Your task to perform on an android device: change the upload size in google photos Image 0: 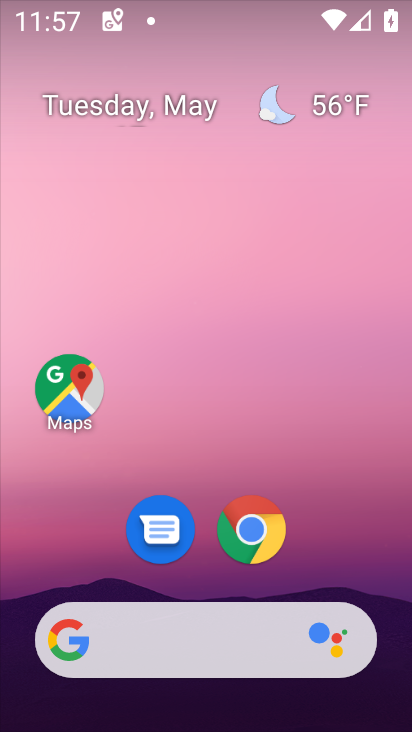
Step 0: drag from (400, 599) to (410, 138)
Your task to perform on an android device: change the upload size in google photos Image 1: 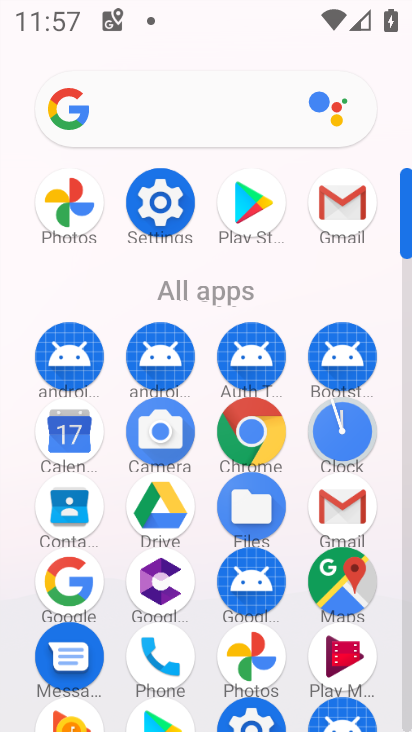
Step 1: drag from (405, 175) to (406, 140)
Your task to perform on an android device: change the upload size in google photos Image 2: 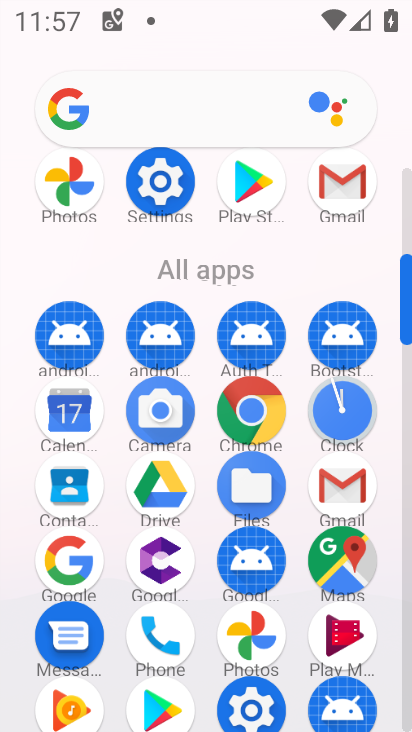
Step 2: click (255, 642)
Your task to perform on an android device: change the upload size in google photos Image 3: 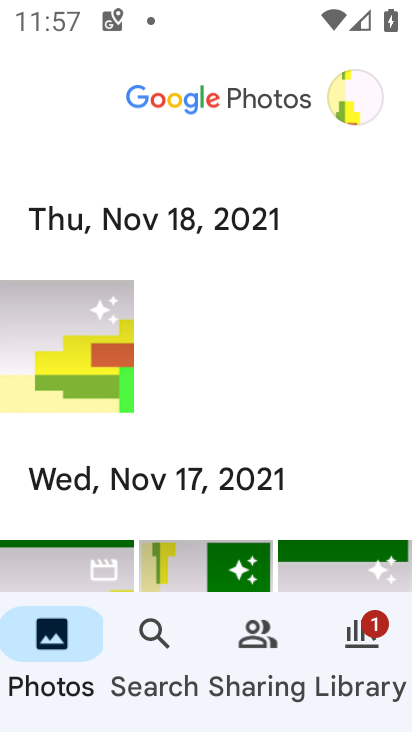
Step 3: task complete